Your task to perform on an android device: Empty the shopping cart on bestbuy.com. Image 0: 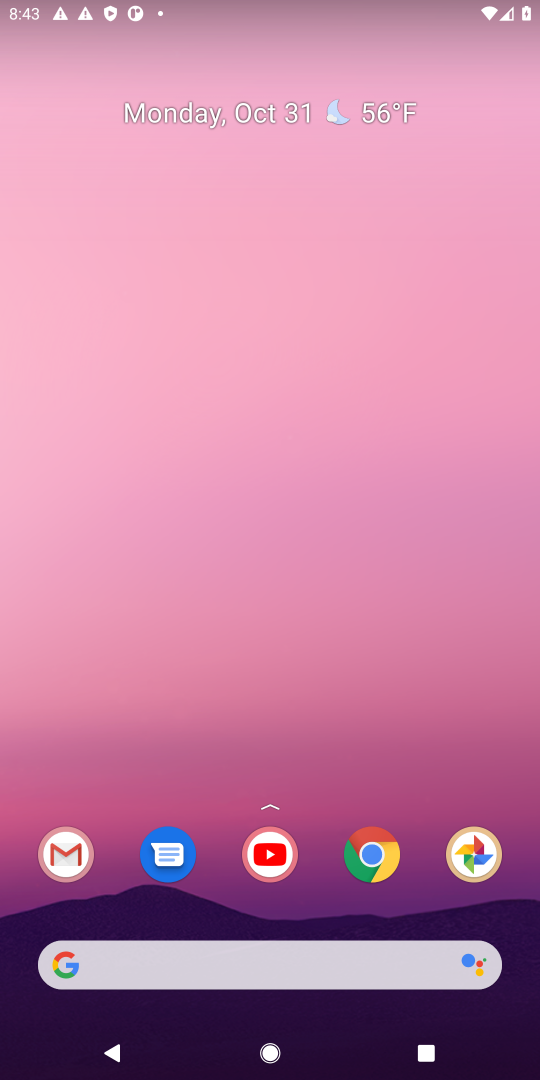
Step 0: click (306, 981)
Your task to perform on an android device: Empty the shopping cart on bestbuy.com. Image 1: 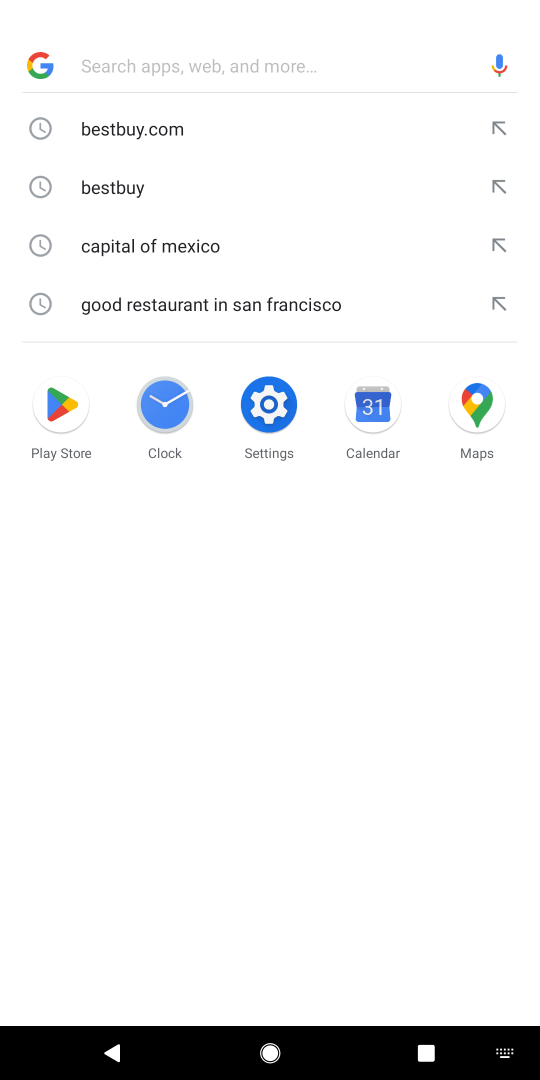
Step 1: type "bestbuy"
Your task to perform on an android device: Empty the shopping cart on bestbuy.com. Image 2: 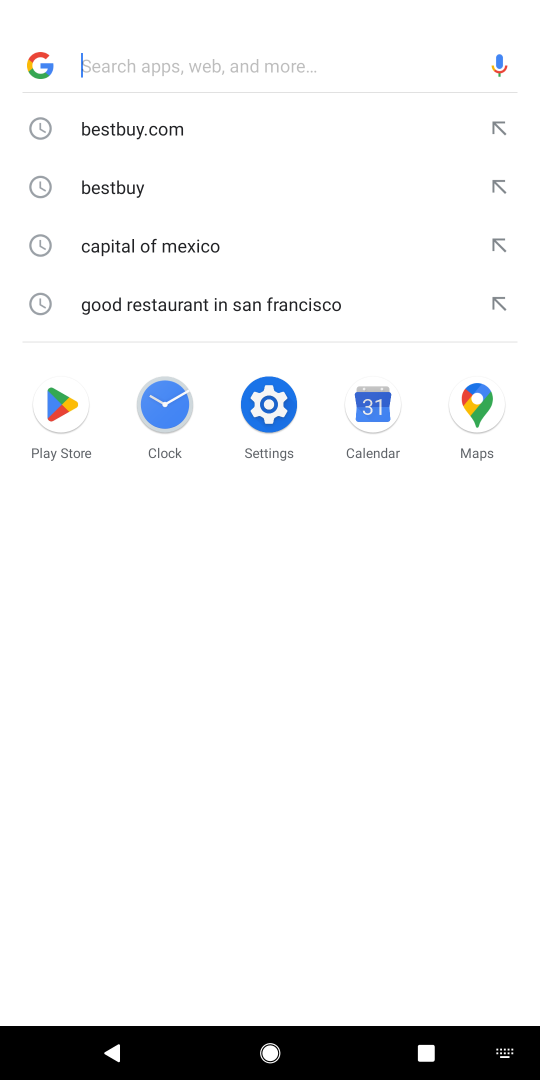
Step 2: click (255, 127)
Your task to perform on an android device: Empty the shopping cart on bestbuy.com. Image 3: 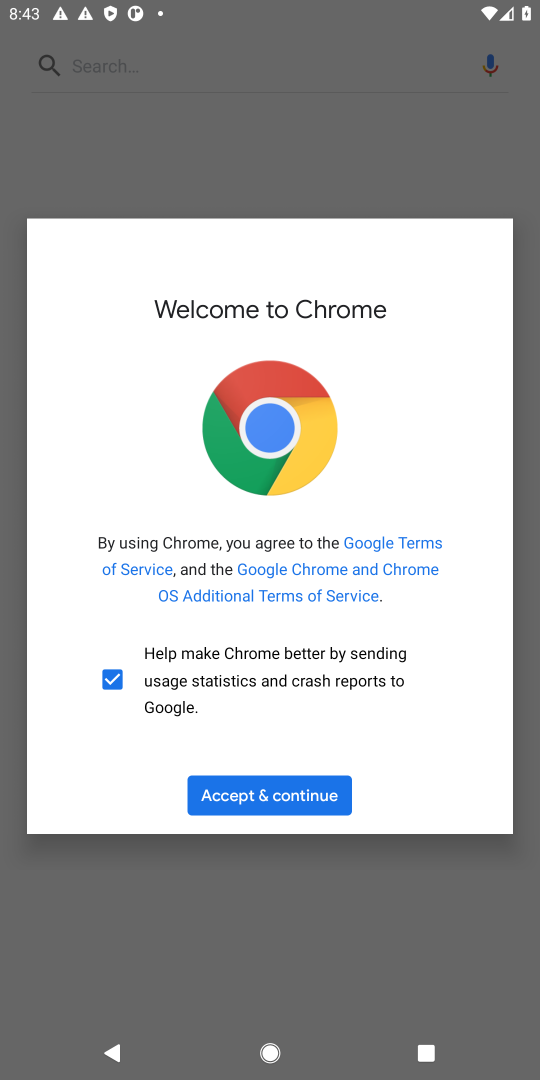
Step 3: click (198, 784)
Your task to perform on an android device: Empty the shopping cart on bestbuy.com. Image 4: 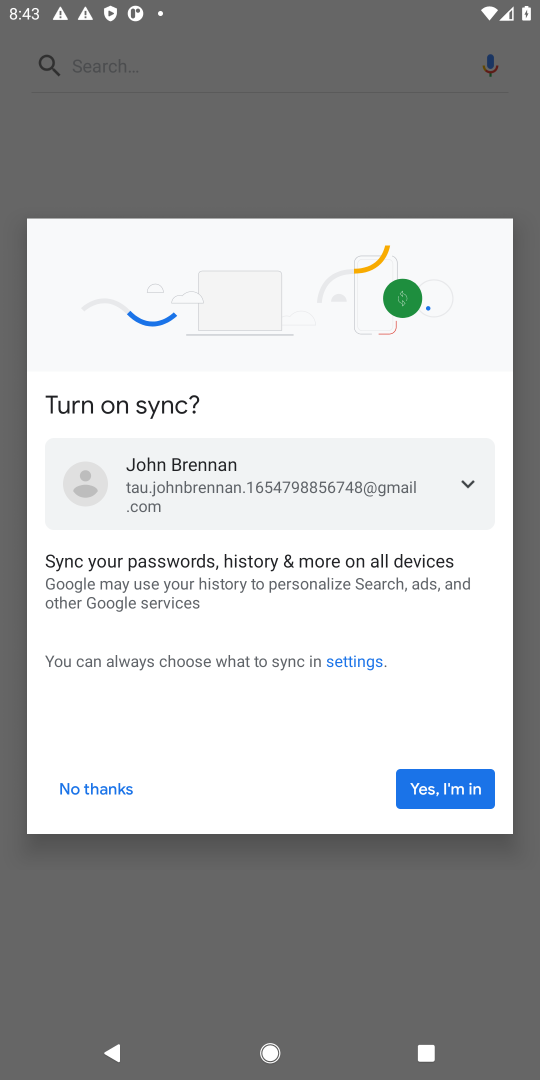
Step 4: click (408, 773)
Your task to perform on an android device: Empty the shopping cart on bestbuy.com. Image 5: 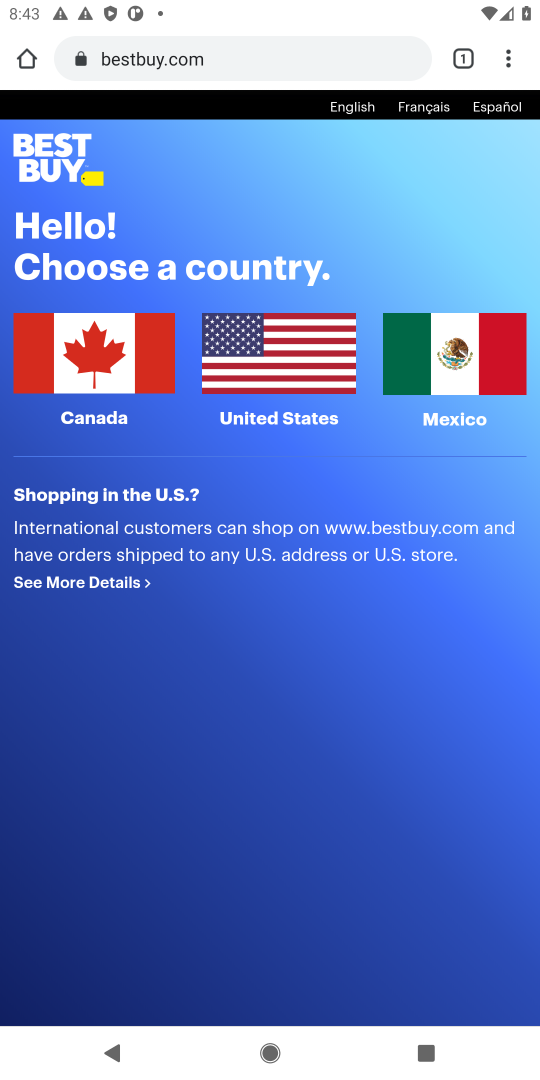
Step 5: click (57, 379)
Your task to perform on an android device: Empty the shopping cart on bestbuy.com. Image 6: 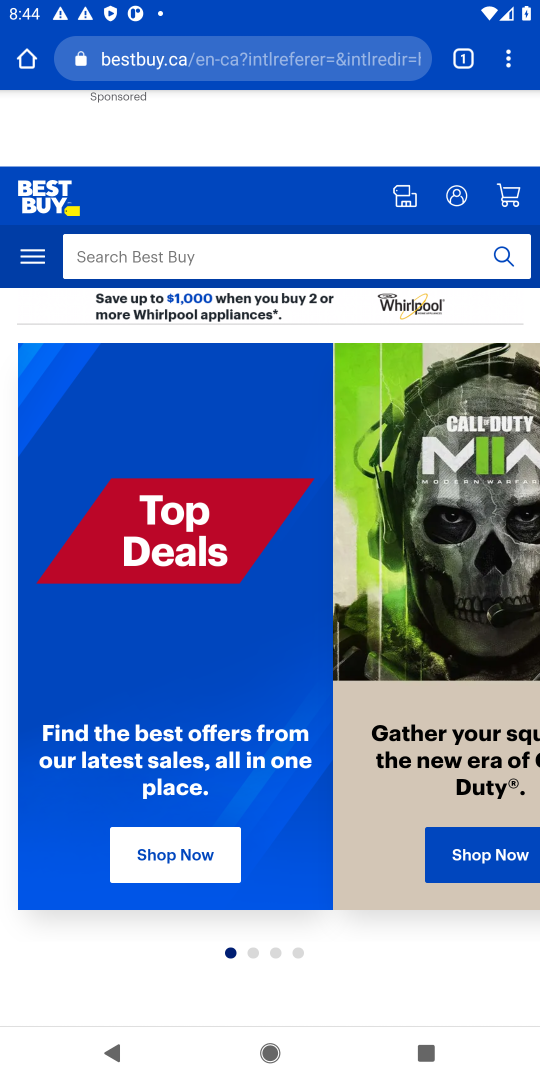
Step 6: click (199, 245)
Your task to perform on an android device: Empty the shopping cart on bestbuy.com. Image 7: 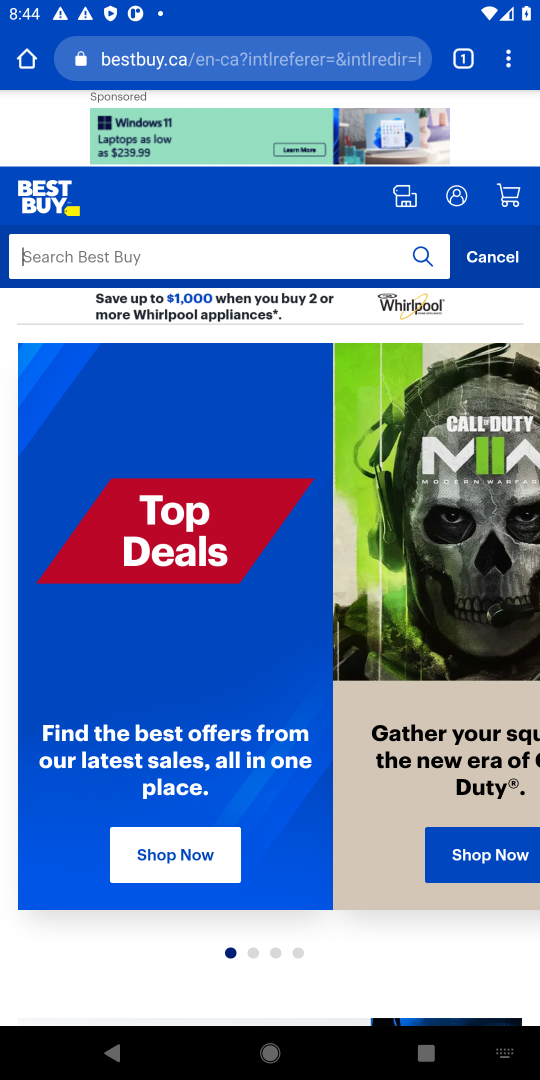
Step 7: click (510, 205)
Your task to perform on an android device: Empty the shopping cart on bestbuy.com. Image 8: 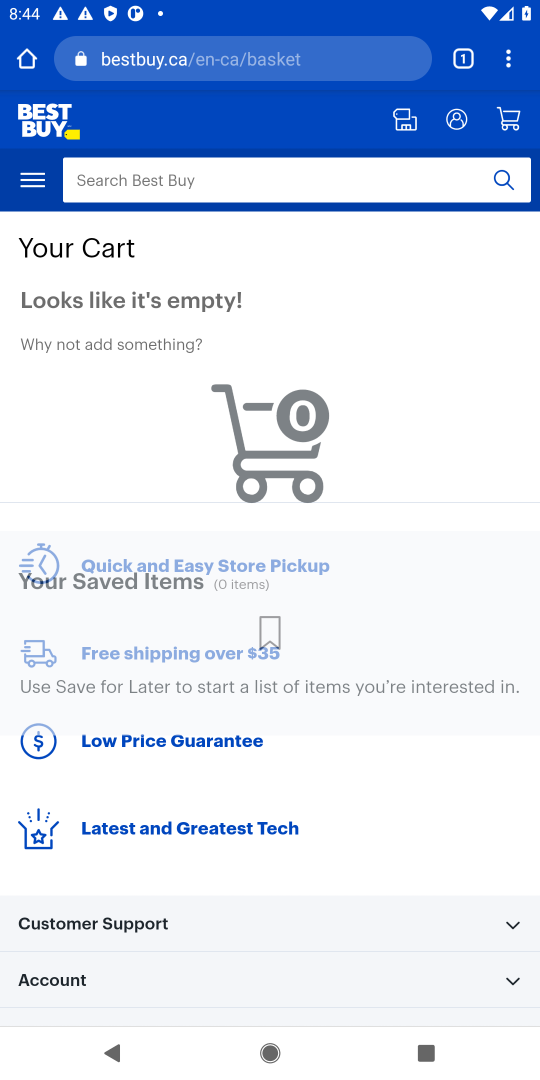
Step 8: task complete